Your task to perform on an android device: Open Google Chrome Image 0: 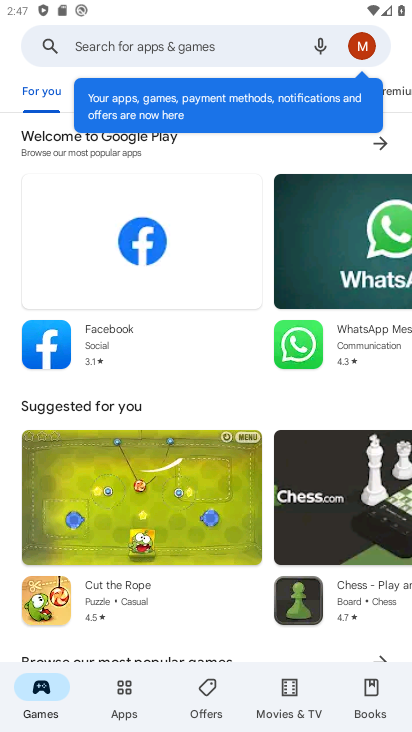
Step 0: press home button
Your task to perform on an android device: Open Google Chrome Image 1: 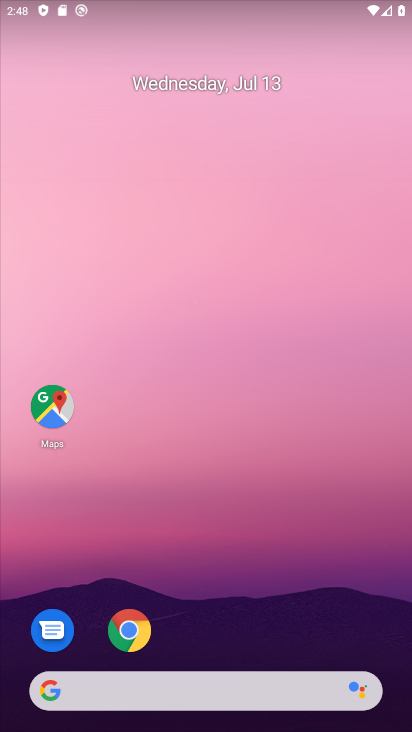
Step 1: click (96, 693)
Your task to perform on an android device: Open Google Chrome Image 2: 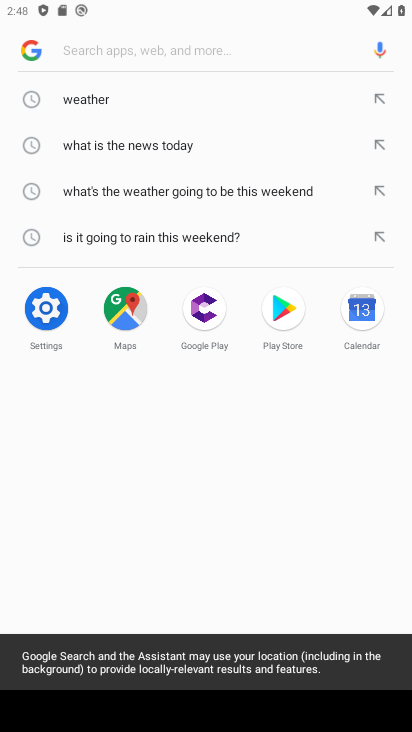
Step 2: press home button
Your task to perform on an android device: Open Google Chrome Image 3: 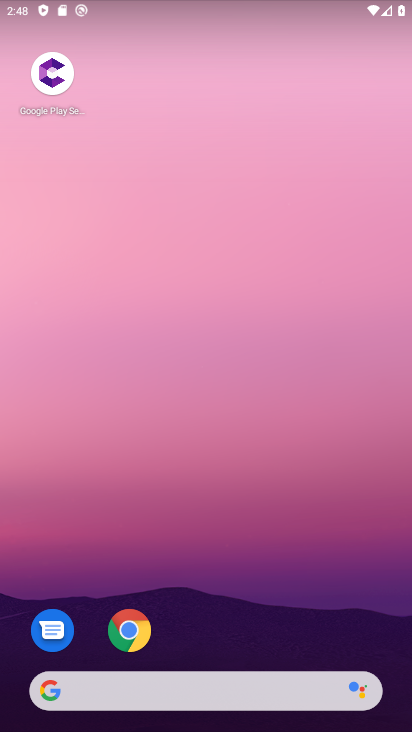
Step 3: click (115, 610)
Your task to perform on an android device: Open Google Chrome Image 4: 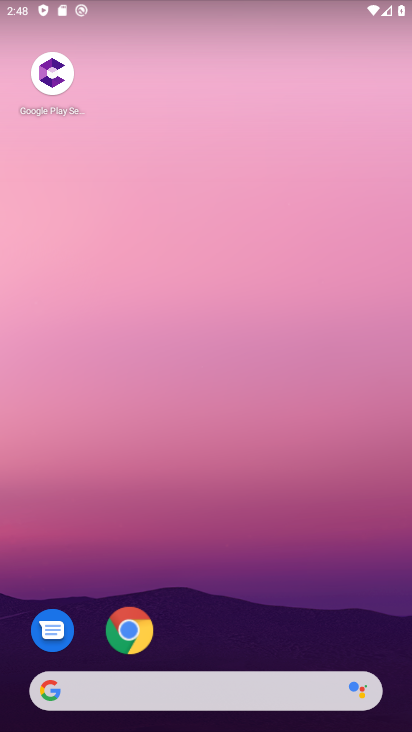
Step 4: click (116, 628)
Your task to perform on an android device: Open Google Chrome Image 5: 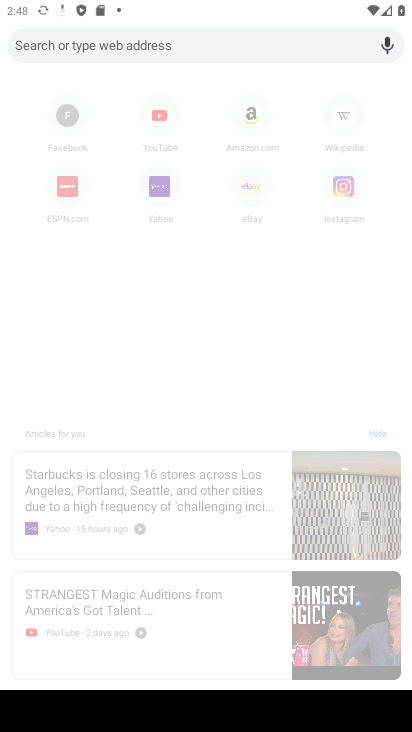
Step 5: task complete